Your task to perform on an android device: open app "Upside-Cash back on gas & food" (install if not already installed) and enter user name: "transatlantic@gmail.com" and password: "experiences" Image 0: 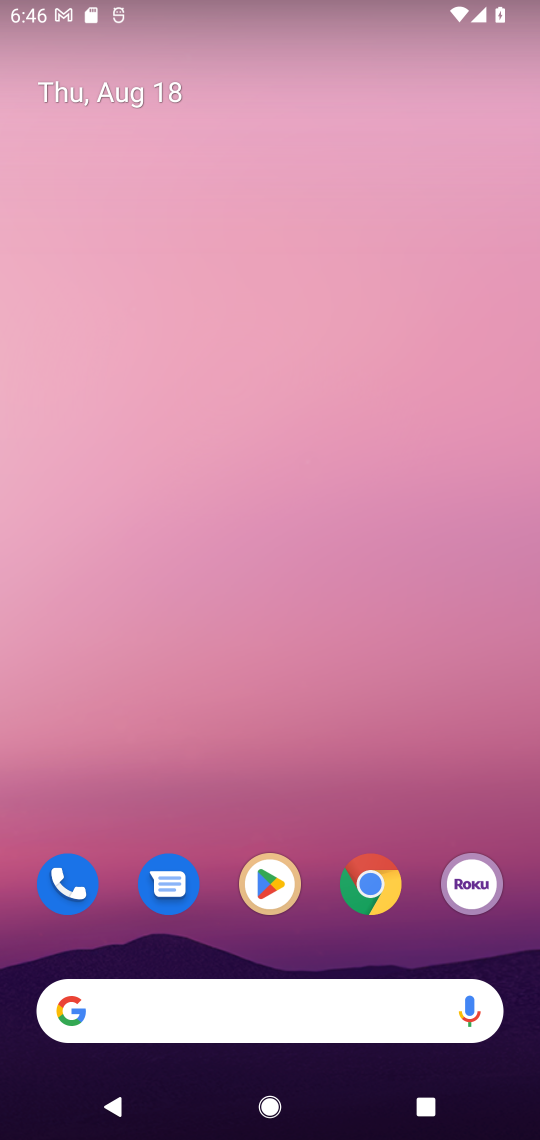
Step 0: drag from (217, 1011) to (295, 81)
Your task to perform on an android device: open app "Upside-Cash back on gas & food" (install if not already installed) and enter user name: "transatlantic@gmail.com" and password: "experiences" Image 1: 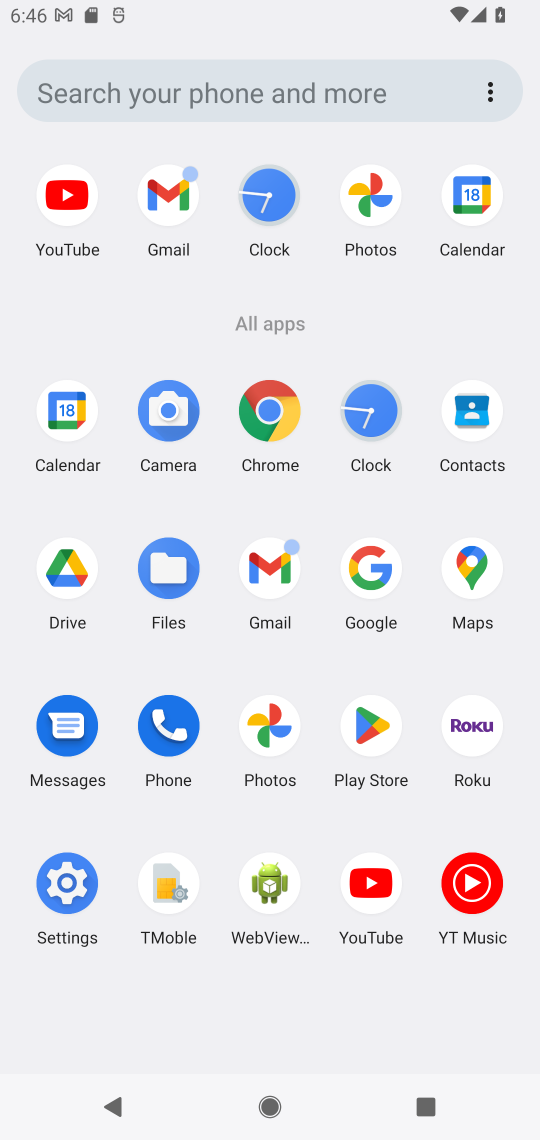
Step 1: click (368, 720)
Your task to perform on an android device: open app "Upside-Cash back on gas & food" (install if not already installed) and enter user name: "transatlantic@gmail.com" and password: "experiences" Image 2: 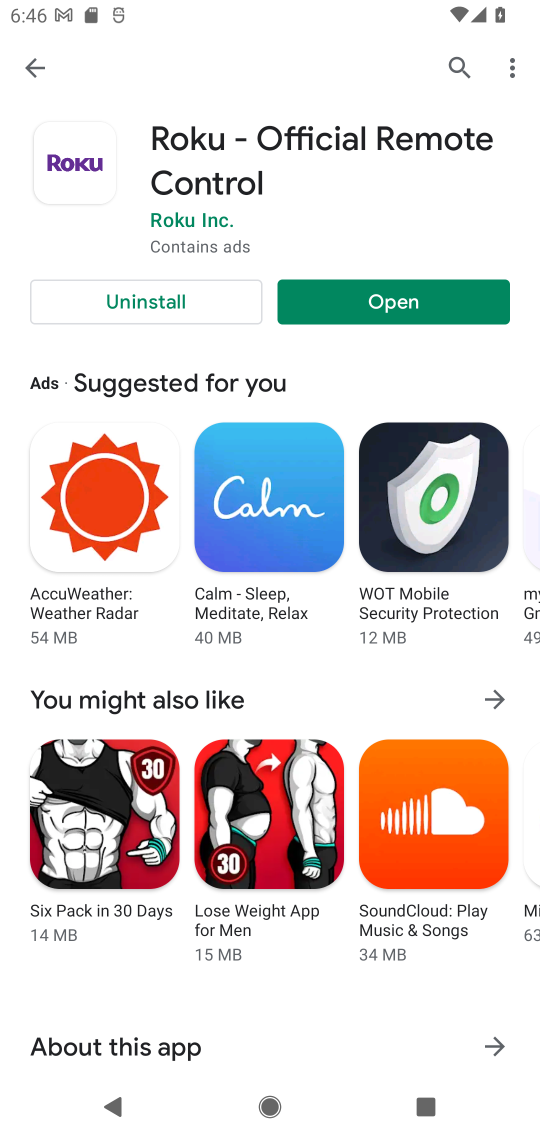
Step 2: press back button
Your task to perform on an android device: open app "Upside-Cash back on gas & food" (install if not already installed) and enter user name: "transatlantic@gmail.com" and password: "experiences" Image 3: 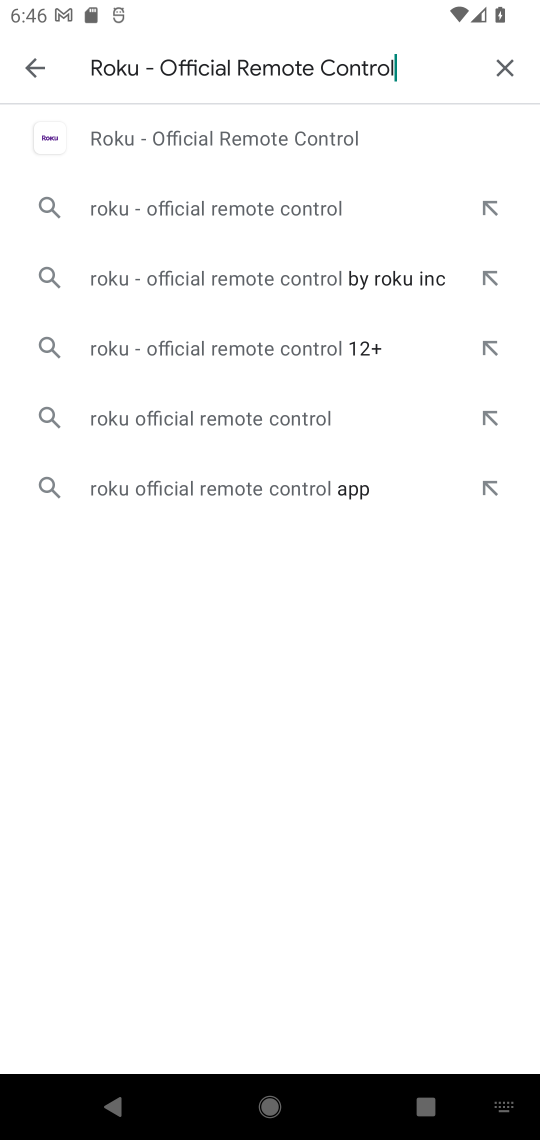
Step 3: press back button
Your task to perform on an android device: open app "Upside-Cash back on gas & food" (install if not already installed) and enter user name: "transatlantic@gmail.com" and password: "experiences" Image 4: 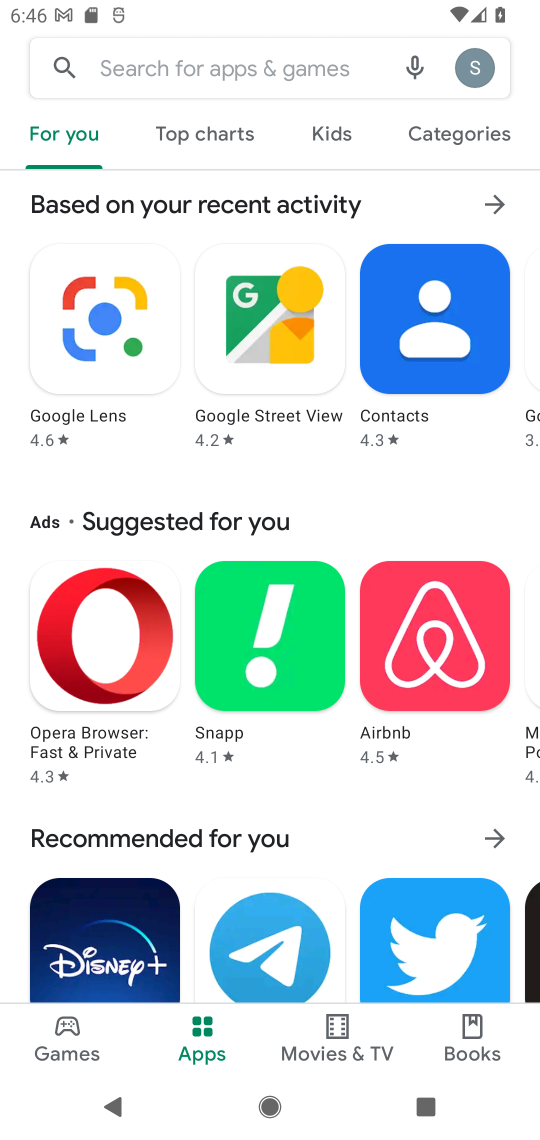
Step 4: click (321, 71)
Your task to perform on an android device: open app "Upside-Cash back on gas & food" (install if not already installed) and enter user name: "transatlantic@gmail.com" and password: "experiences" Image 5: 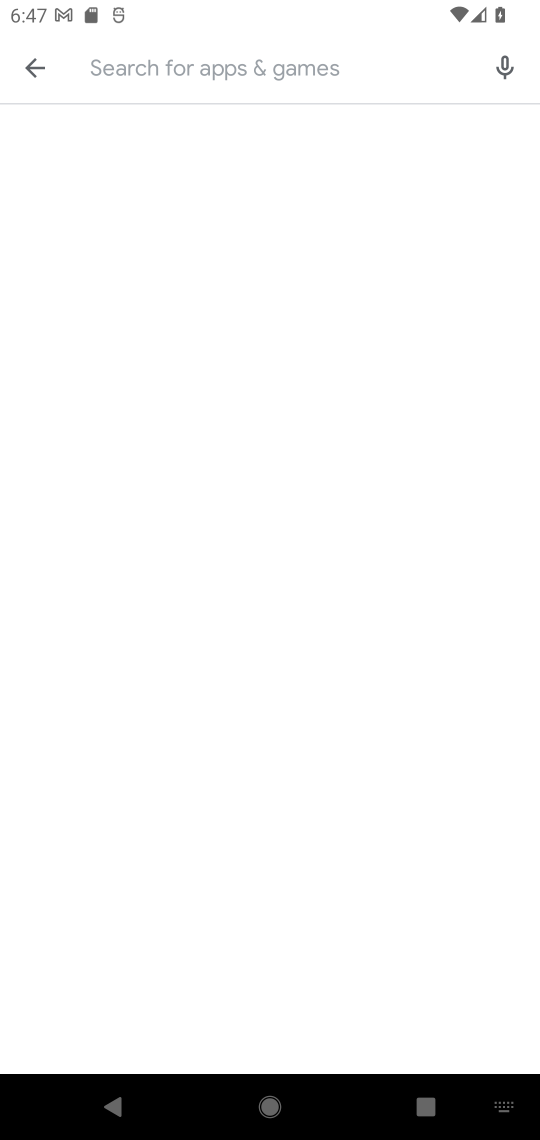
Step 5: type "Upside-Cash back on gas & food"
Your task to perform on an android device: open app "Upside-Cash back on gas & food" (install if not already installed) and enter user name: "transatlantic@gmail.com" and password: "experiences" Image 6: 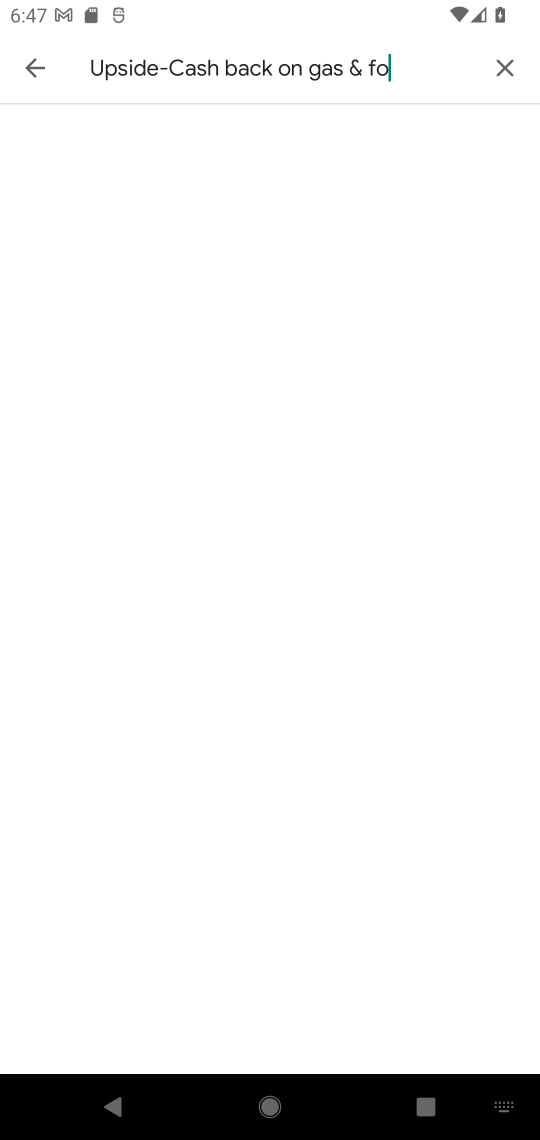
Step 6: type ""
Your task to perform on an android device: open app "Upside-Cash back on gas & food" (install if not already installed) and enter user name: "transatlantic@gmail.com" and password: "experiences" Image 7: 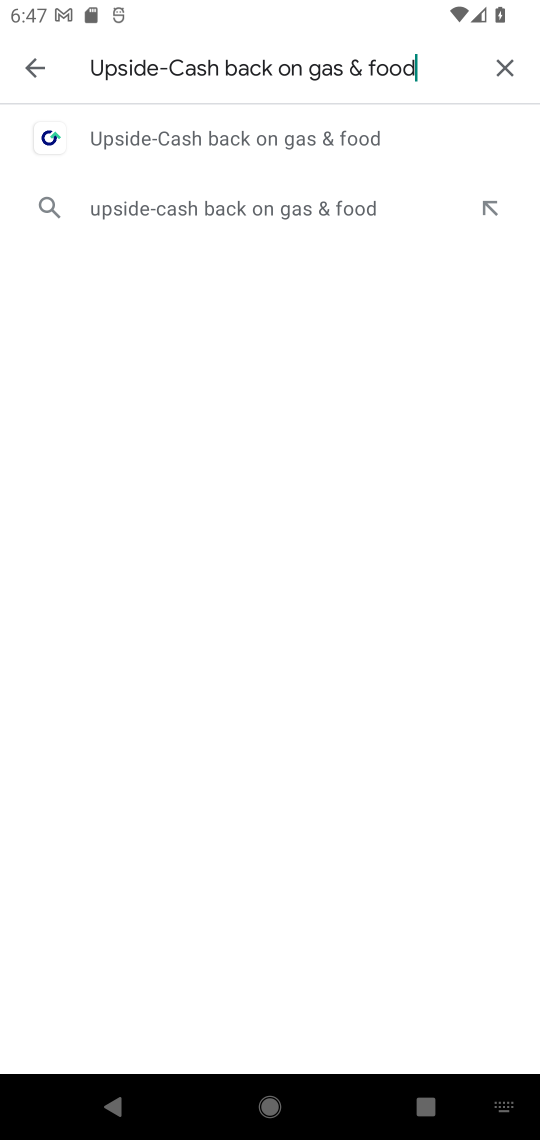
Step 7: click (319, 143)
Your task to perform on an android device: open app "Upside-Cash back on gas & food" (install if not already installed) and enter user name: "transatlantic@gmail.com" and password: "experiences" Image 8: 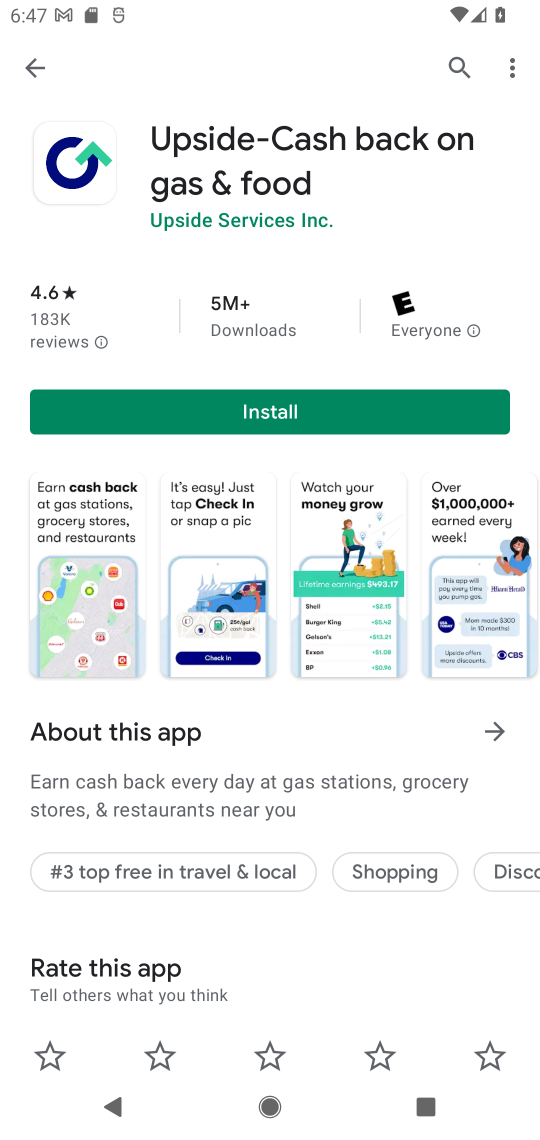
Step 8: click (289, 406)
Your task to perform on an android device: open app "Upside-Cash back on gas & food" (install if not already installed) and enter user name: "transatlantic@gmail.com" and password: "experiences" Image 9: 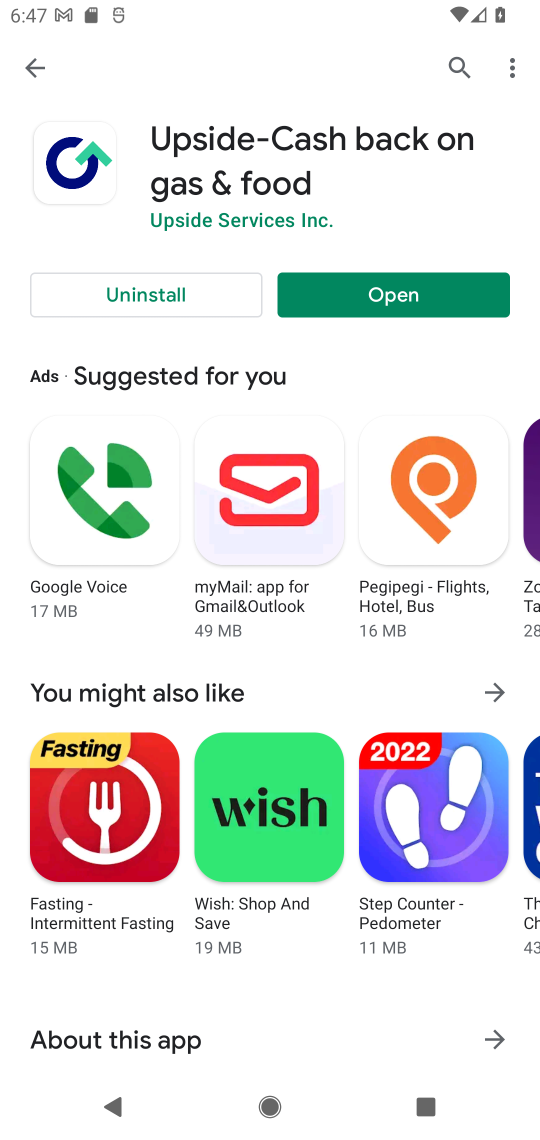
Step 9: click (400, 293)
Your task to perform on an android device: open app "Upside-Cash back on gas & food" (install if not already installed) and enter user name: "transatlantic@gmail.com" and password: "experiences" Image 10: 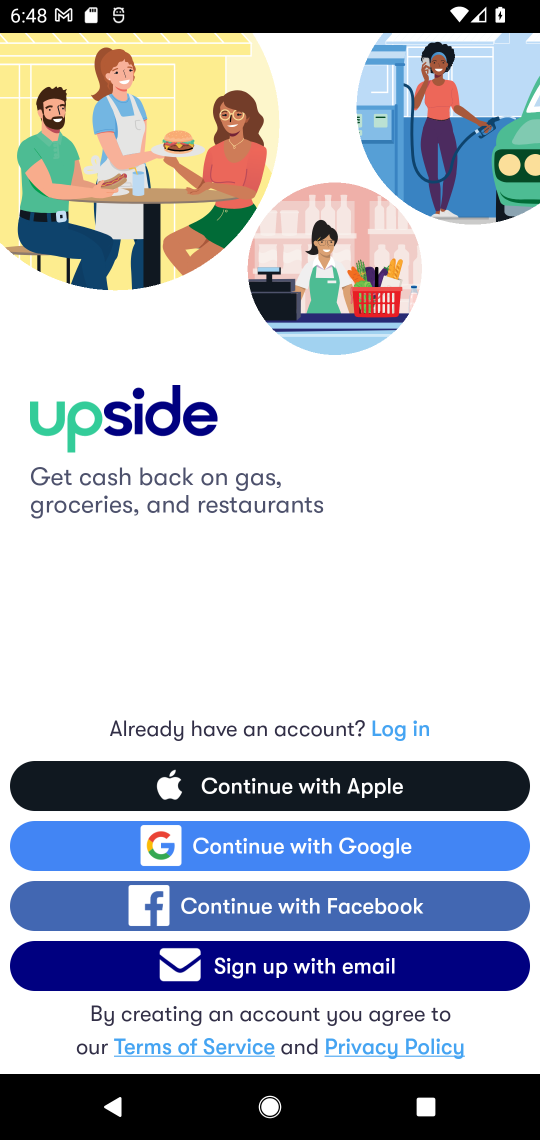
Step 10: click (386, 734)
Your task to perform on an android device: open app "Upside-Cash back on gas & food" (install if not already installed) and enter user name: "transatlantic@gmail.com" and password: "experiences" Image 11: 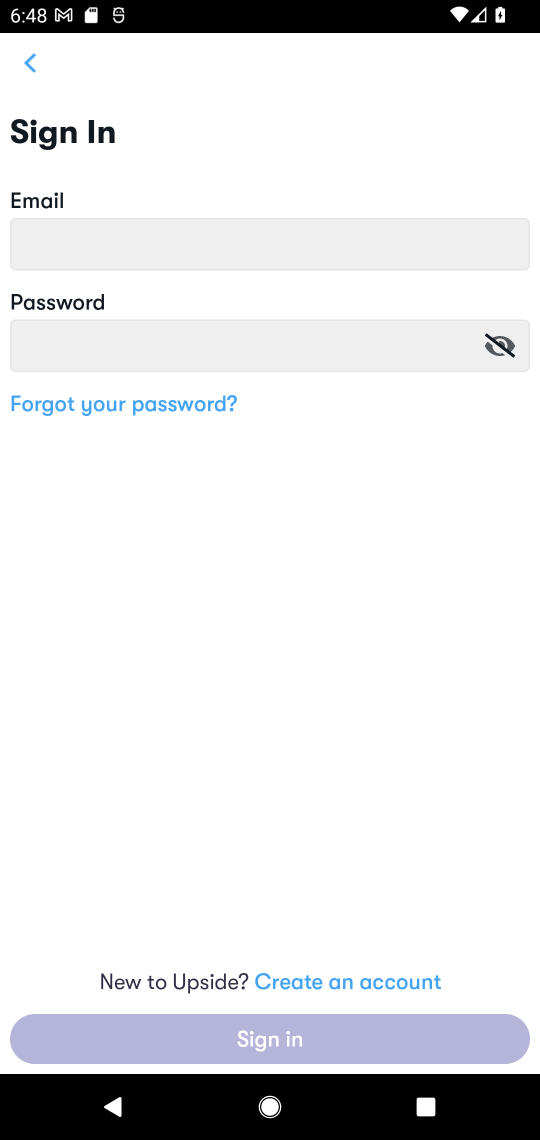
Step 11: click (172, 238)
Your task to perform on an android device: open app "Upside-Cash back on gas & food" (install if not already installed) and enter user name: "transatlantic@gmail.com" and password: "experiences" Image 12: 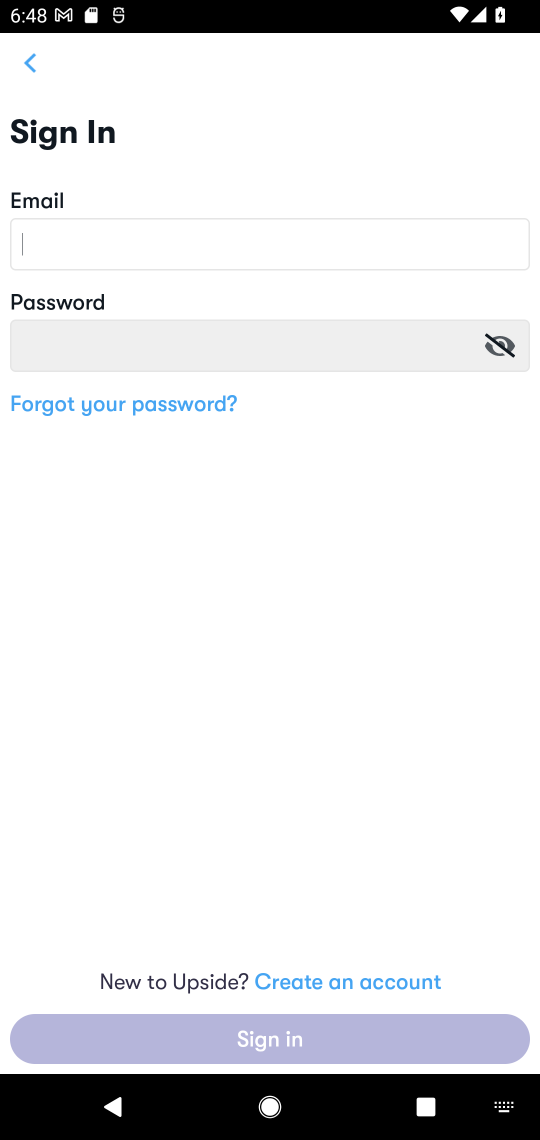
Step 12: type "transatlantic@gmail.com"
Your task to perform on an android device: open app "Upside-Cash back on gas & food" (install if not already installed) and enter user name: "transatlantic@gmail.com" and password: "experiences" Image 13: 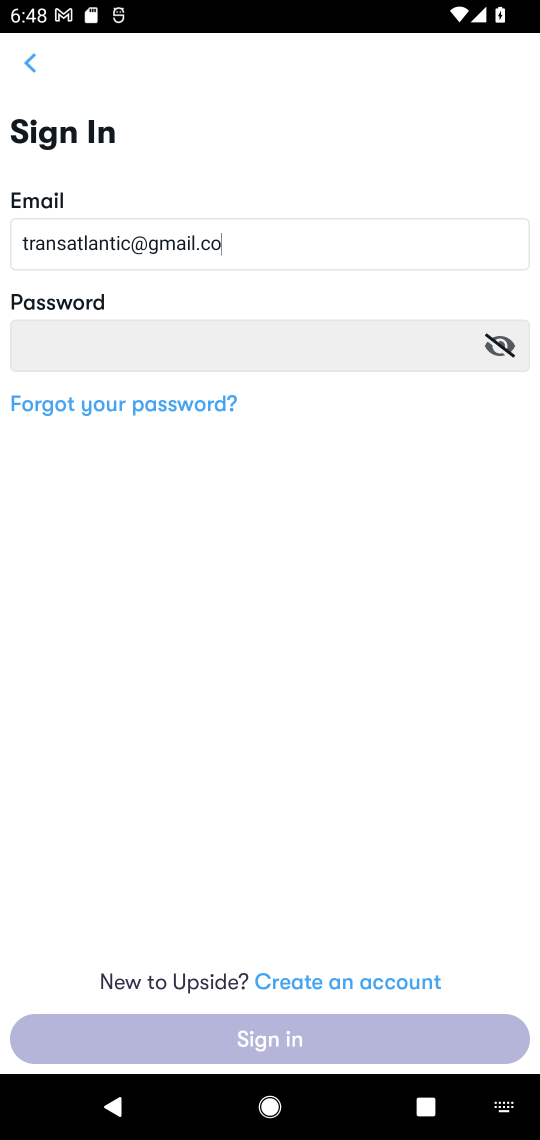
Step 13: type ""
Your task to perform on an android device: open app "Upside-Cash back on gas & food" (install if not already installed) and enter user name: "transatlantic@gmail.com" and password: "experiences" Image 14: 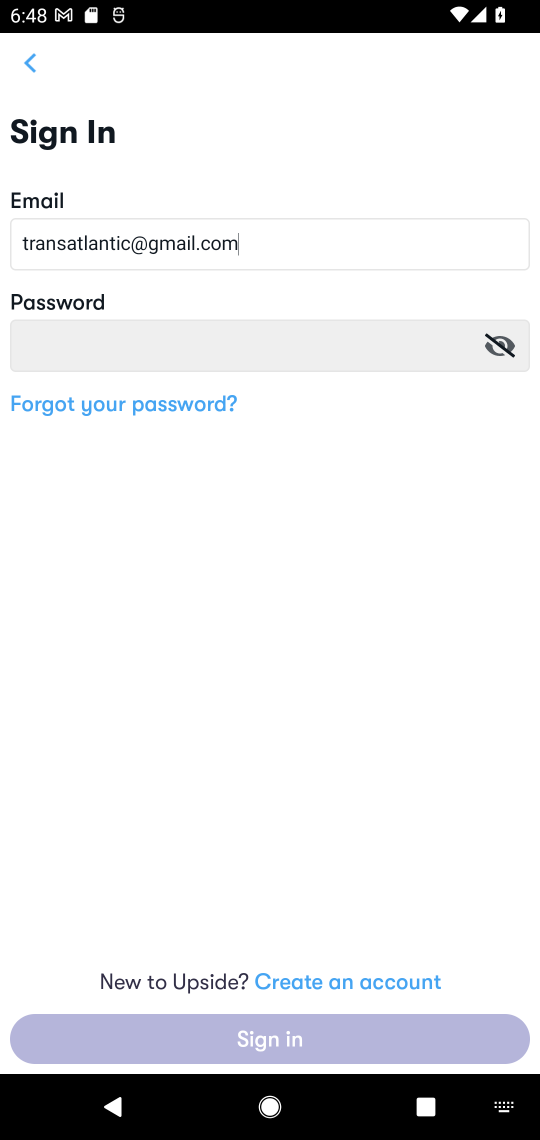
Step 14: click (275, 343)
Your task to perform on an android device: open app "Upside-Cash back on gas & food" (install if not already installed) and enter user name: "transatlantic@gmail.com" and password: "experiences" Image 15: 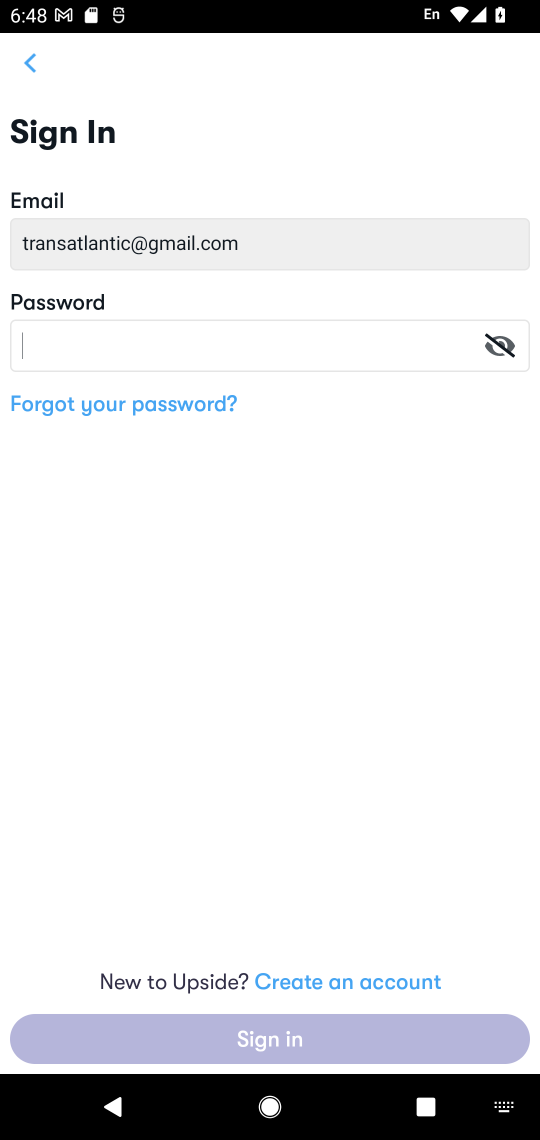
Step 15: type "experiences"
Your task to perform on an android device: open app "Upside-Cash back on gas & food" (install if not already installed) and enter user name: "transatlantic@gmail.com" and password: "experiences" Image 16: 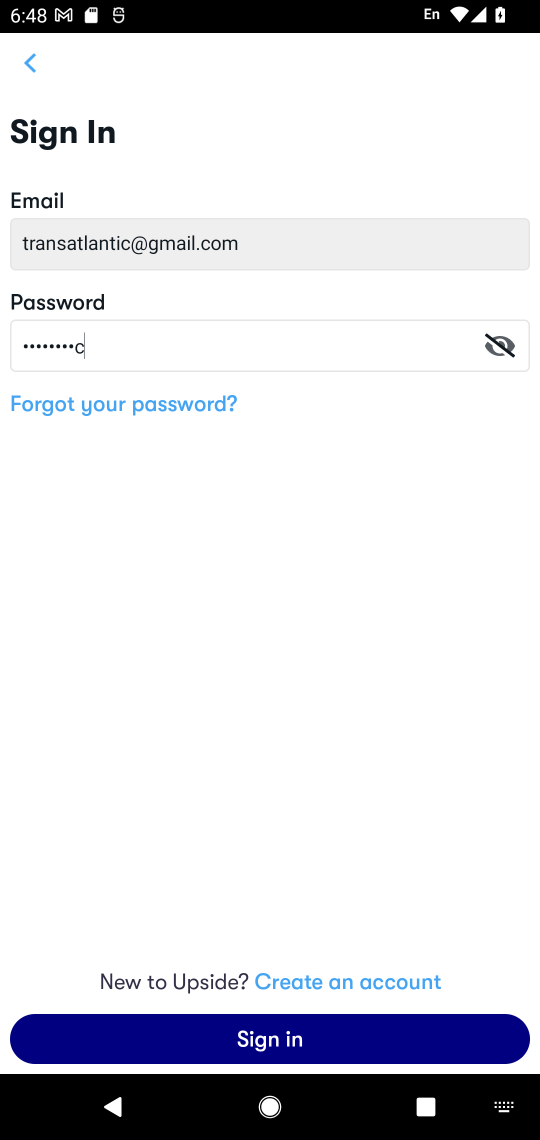
Step 16: type ""
Your task to perform on an android device: open app "Upside-Cash back on gas & food" (install if not already installed) and enter user name: "transatlantic@gmail.com" and password: "experiences" Image 17: 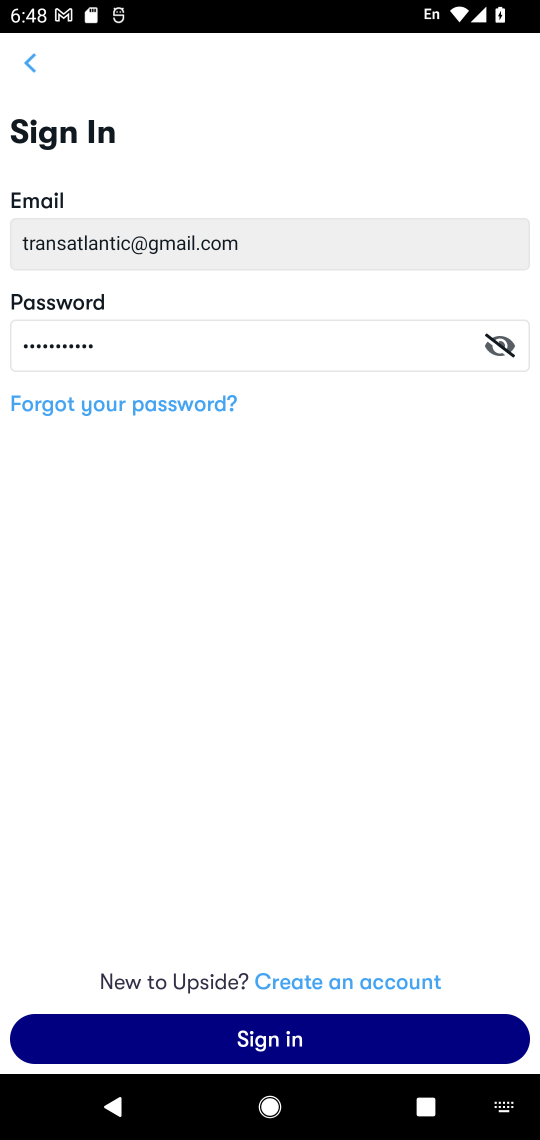
Step 17: task complete